Your task to perform on an android device: Go to internet settings Image 0: 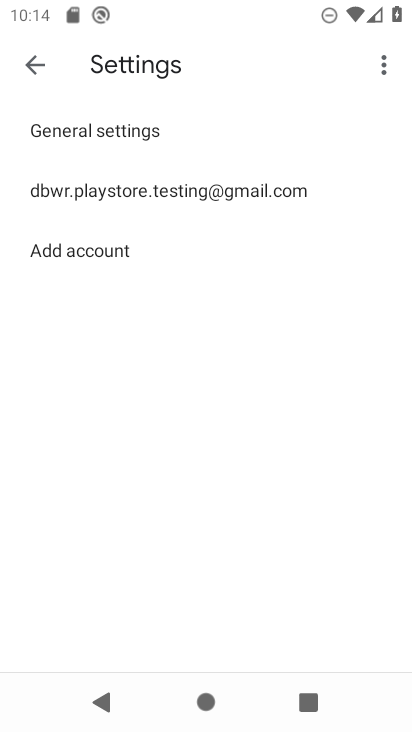
Step 0: press home button
Your task to perform on an android device: Go to internet settings Image 1: 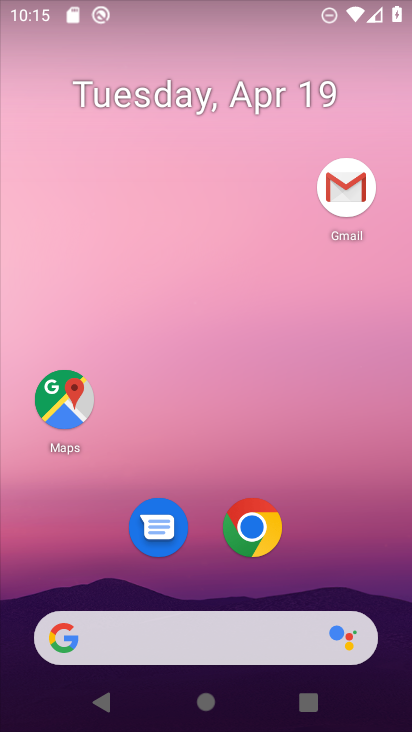
Step 1: drag from (324, 378) to (310, 74)
Your task to perform on an android device: Go to internet settings Image 2: 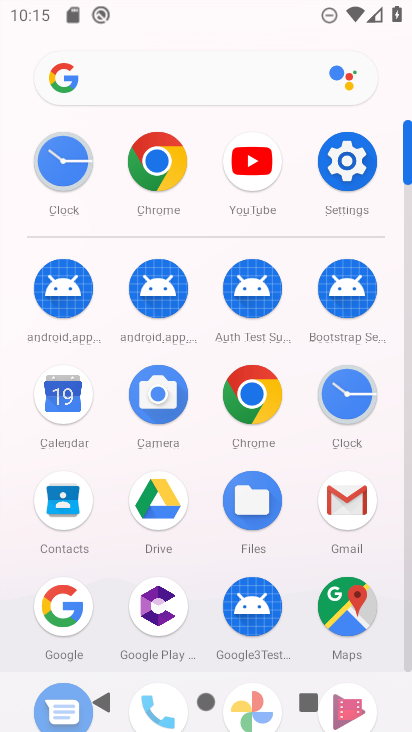
Step 2: click (366, 166)
Your task to perform on an android device: Go to internet settings Image 3: 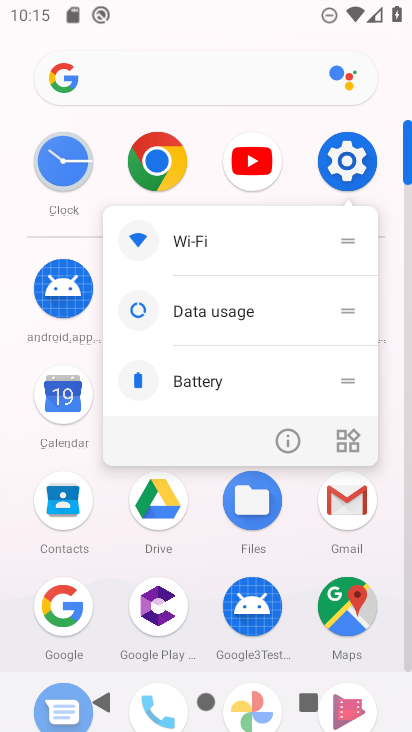
Step 3: click (364, 164)
Your task to perform on an android device: Go to internet settings Image 4: 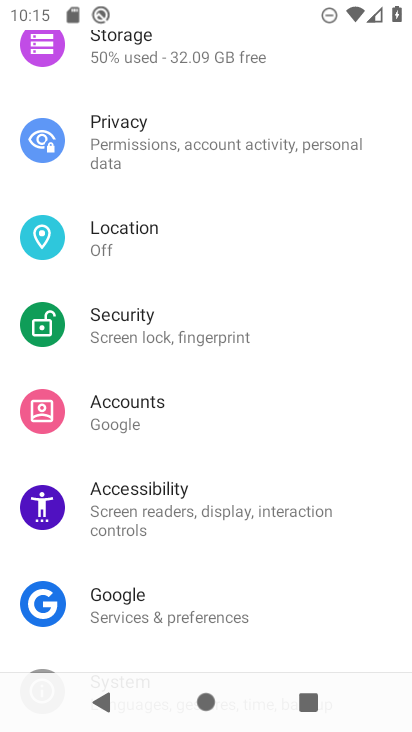
Step 4: drag from (315, 576) to (327, 227)
Your task to perform on an android device: Go to internet settings Image 5: 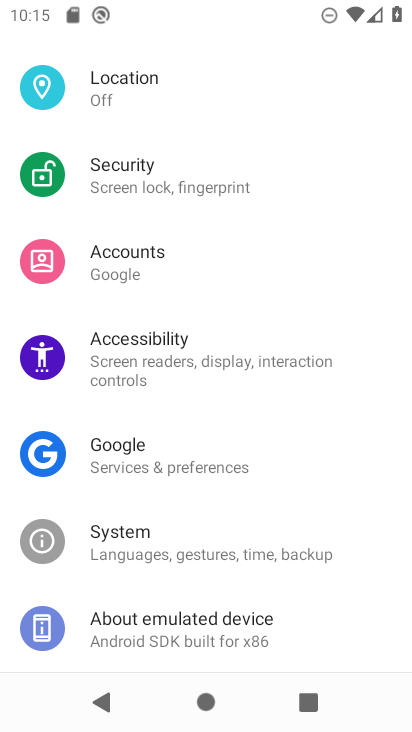
Step 5: drag from (312, 106) to (309, 636)
Your task to perform on an android device: Go to internet settings Image 6: 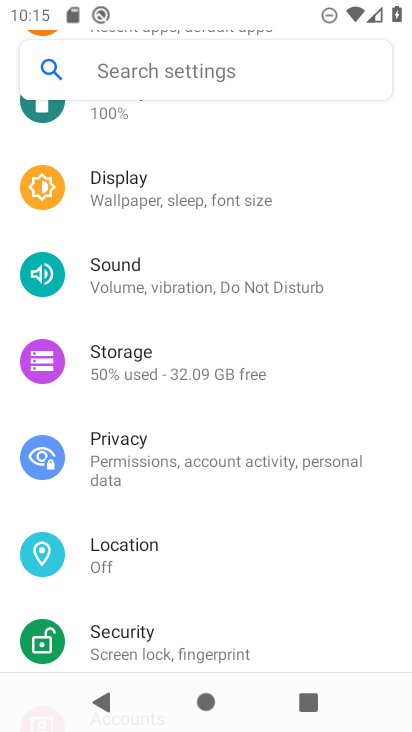
Step 6: drag from (331, 178) to (347, 629)
Your task to perform on an android device: Go to internet settings Image 7: 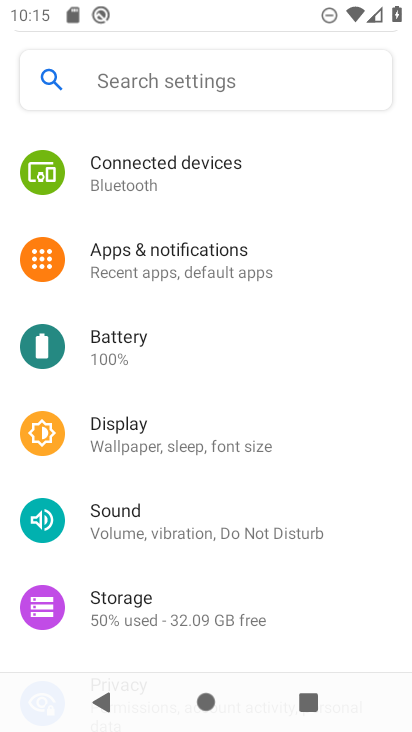
Step 7: drag from (318, 188) to (368, 626)
Your task to perform on an android device: Go to internet settings Image 8: 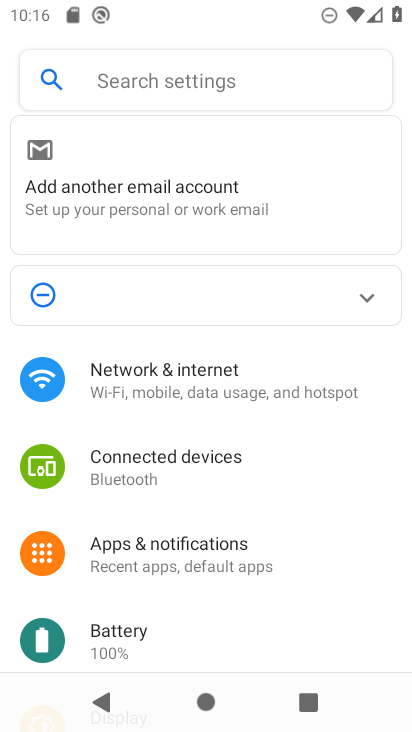
Step 8: click (234, 385)
Your task to perform on an android device: Go to internet settings Image 9: 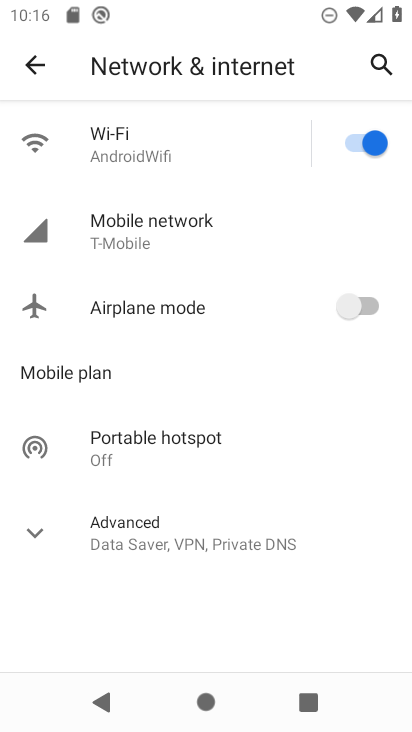
Step 9: click (188, 219)
Your task to perform on an android device: Go to internet settings Image 10: 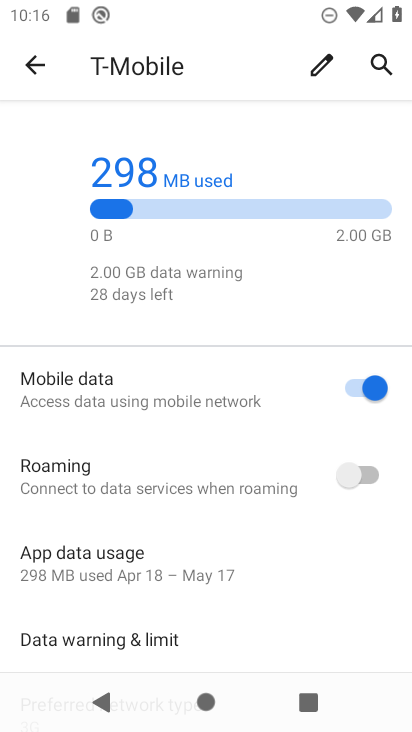
Step 10: task complete